Your task to perform on an android device: install app "ZOOM Cloud Meetings" Image 0: 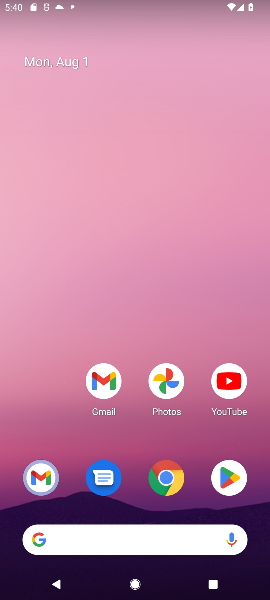
Step 0: click (230, 476)
Your task to perform on an android device: install app "ZOOM Cloud Meetings" Image 1: 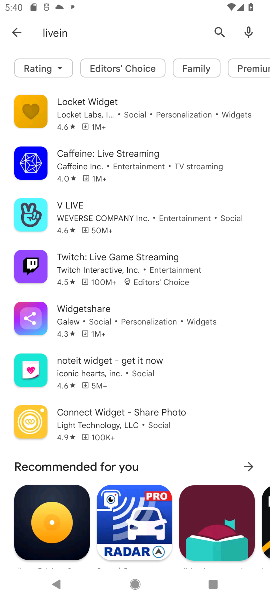
Step 1: click (215, 29)
Your task to perform on an android device: install app "ZOOM Cloud Meetings" Image 2: 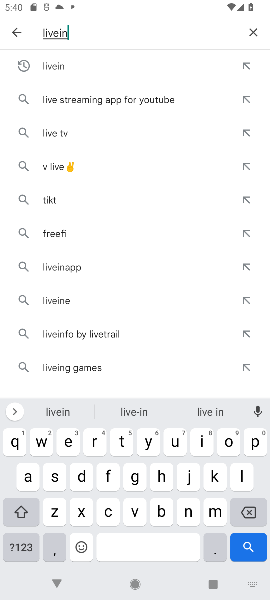
Step 2: click (256, 34)
Your task to perform on an android device: install app "ZOOM Cloud Meetings" Image 3: 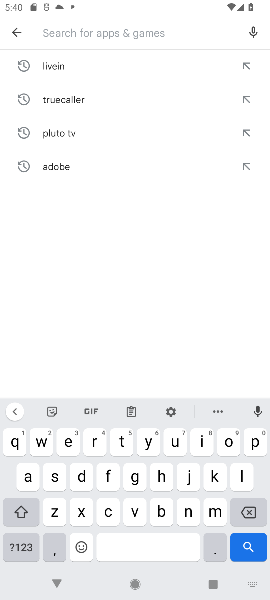
Step 3: click (53, 507)
Your task to perform on an android device: install app "ZOOM Cloud Meetings" Image 4: 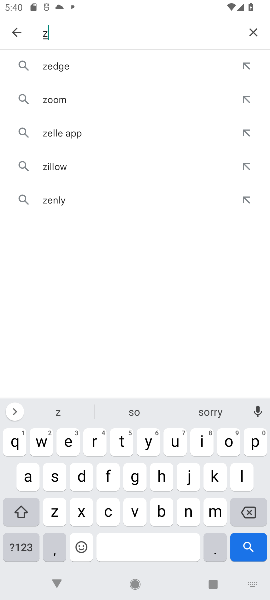
Step 4: click (226, 440)
Your task to perform on an android device: install app "ZOOM Cloud Meetings" Image 5: 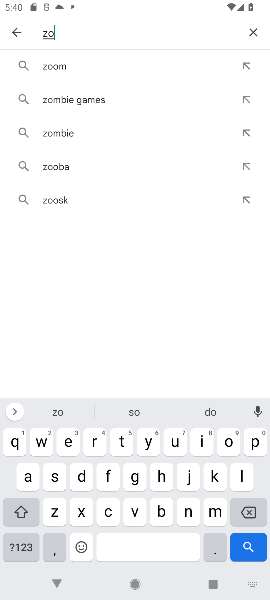
Step 5: click (78, 64)
Your task to perform on an android device: install app "ZOOM Cloud Meetings" Image 6: 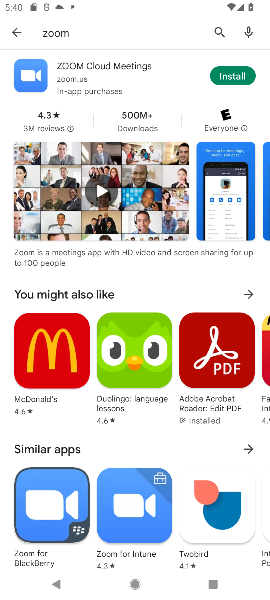
Step 6: click (242, 73)
Your task to perform on an android device: install app "ZOOM Cloud Meetings" Image 7: 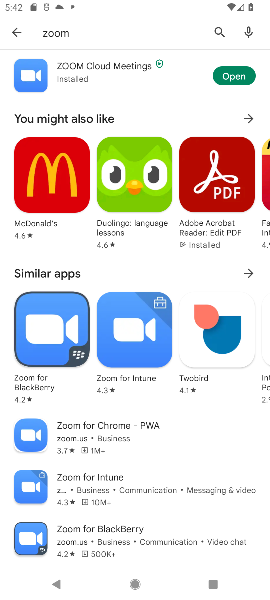
Step 7: task complete